Your task to perform on an android device: clear history in the chrome app Image 0: 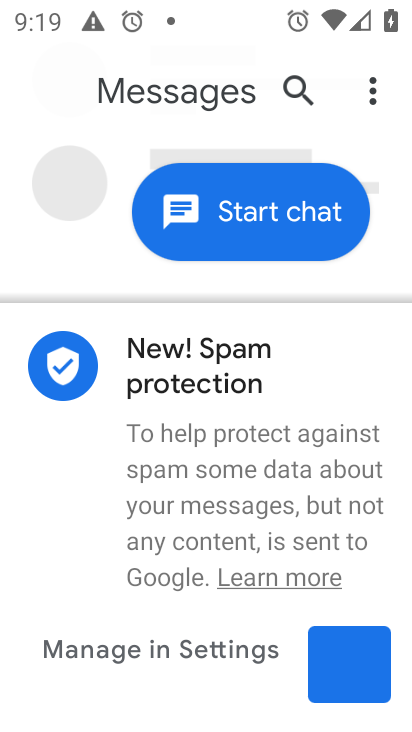
Step 0: press home button
Your task to perform on an android device: clear history in the chrome app Image 1: 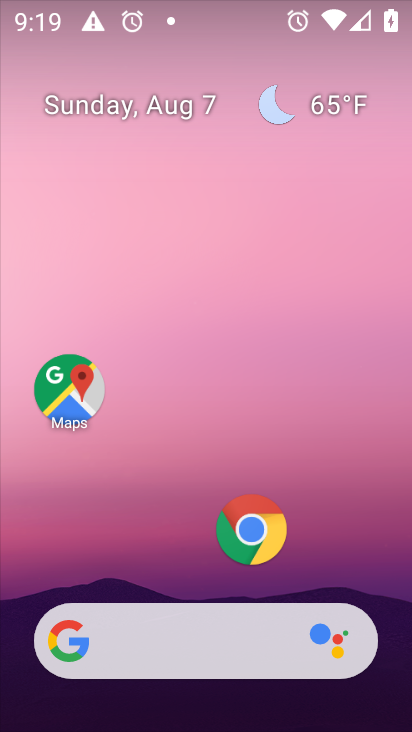
Step 1: click (259, 531)
Your task to perform on an android device: clear history in the chrome app Image 2: 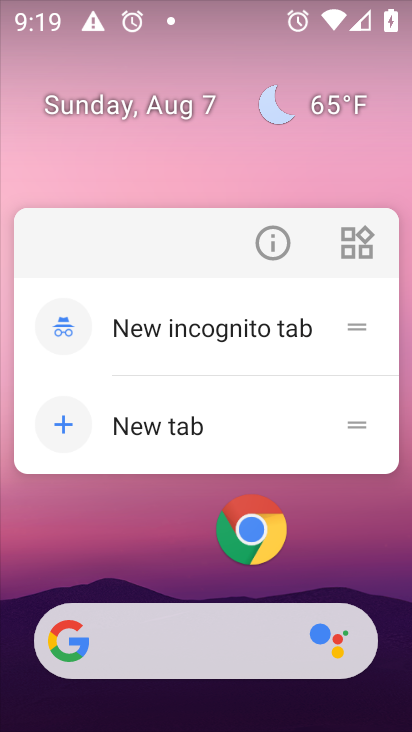
Step 2: click (256, 530)
Your task to perform on an android device: clear history in the chrome app Image 3: 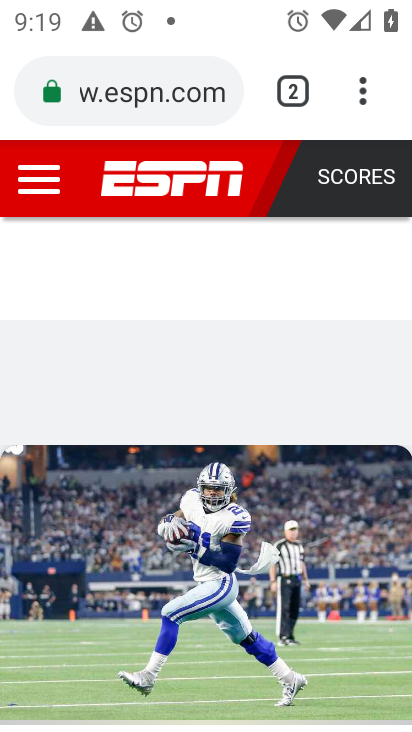
Step 3: click (353, 76)
Your task to perform on an android device: clear history in the chrome app Image 4: 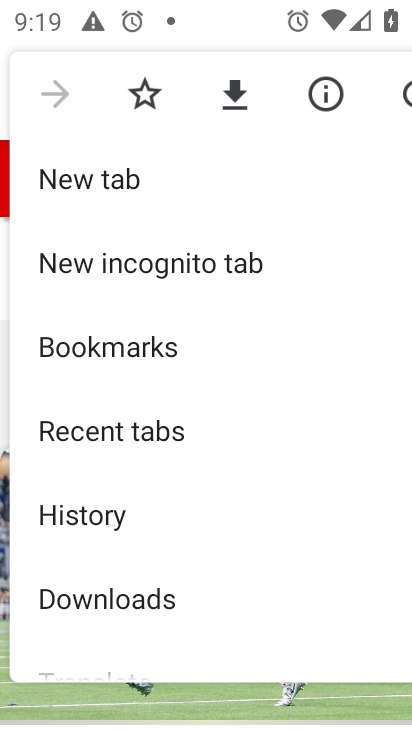
Step 4: click (107, 524)
Your task to perform on an android device: clear history in the chrome app Image 5: 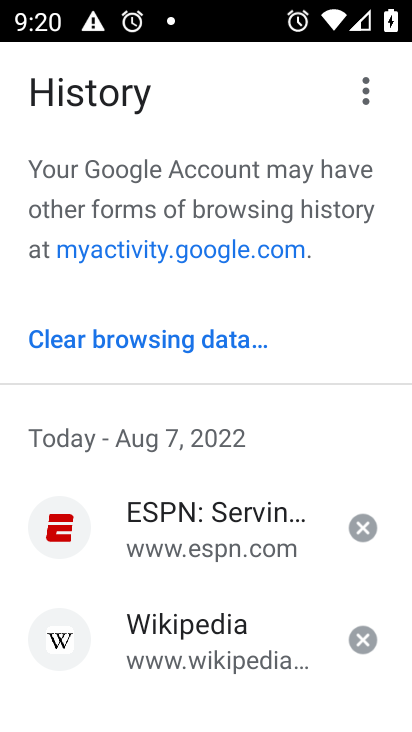
Step 5: click (158, 344)
Your task to perform on an android device: clear history in the chrome app Image 6: 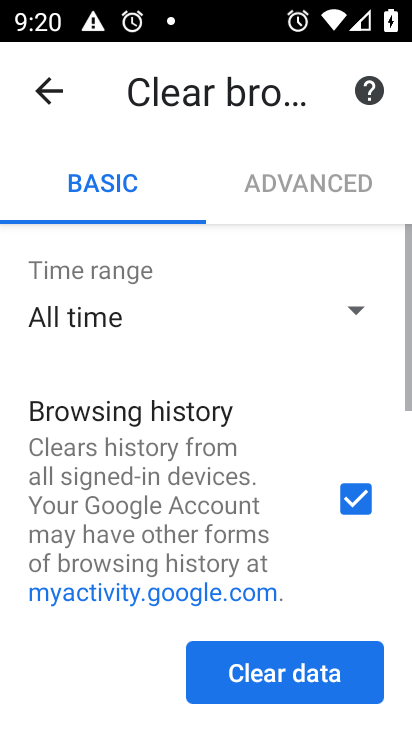
Step 6: drag from (239, 476) to (243, 247)
Your task to perform on an android device: clear history in the chrome app Image 7: 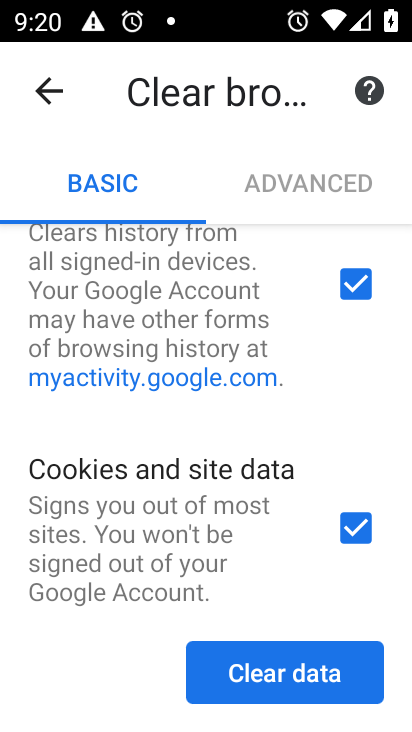
Step 7: click (243, 665)
Your task to perform on an android device: clear history in the chrome app Image 8: 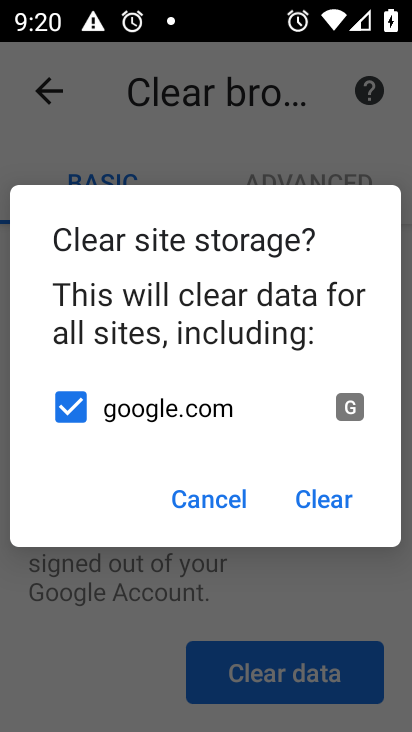
Step 8: click (322, 505)
Your task to perform on an android device: clear history in the chrome app Image 9: 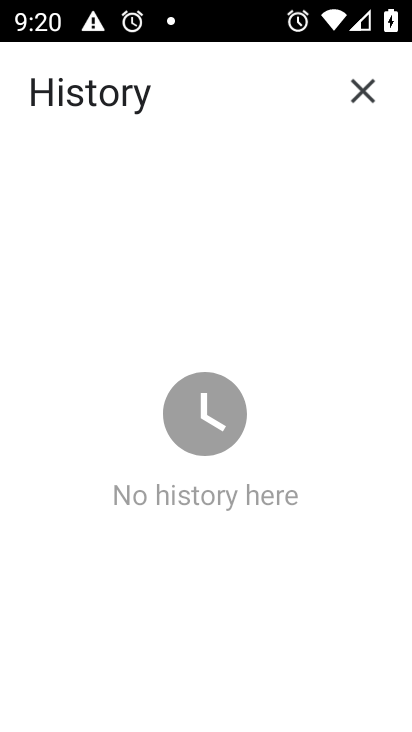
Step 9: task complete